Your task to perform on an android device: What is the recent news? Image 0: 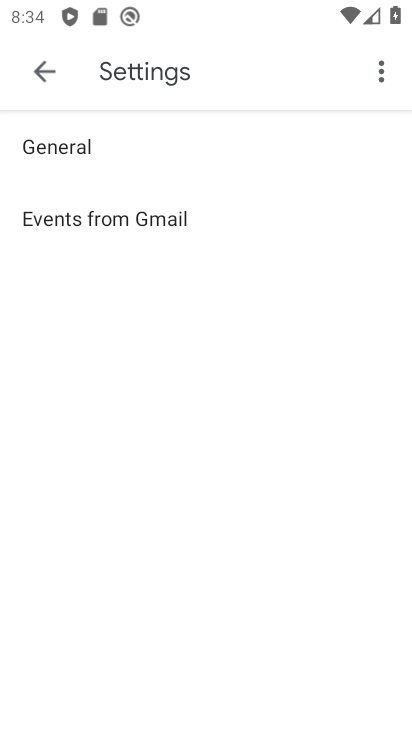
Step 0: press home button
Your task to perform on an android device: What is the recent news? Image 1: 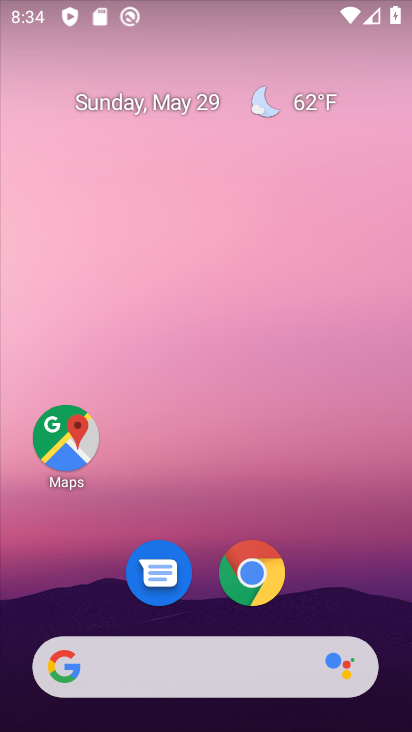
Step 1: click (208, 669)
Your task to perform on an android device: What is the recent news? Image 2: 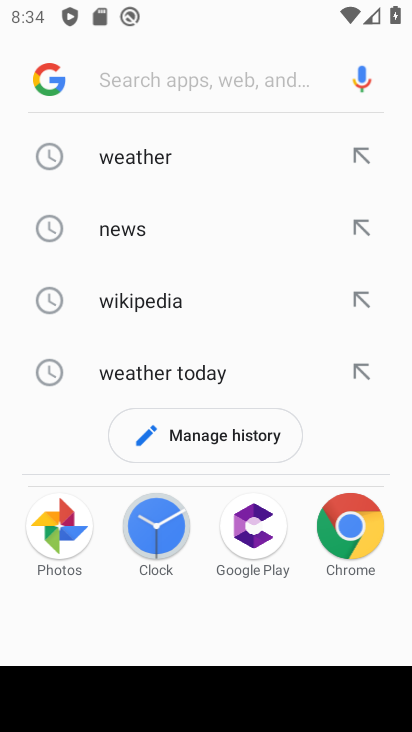
Step 2: type "recent news"
Your task to perform on an android device: What is the recent news? Image 3: 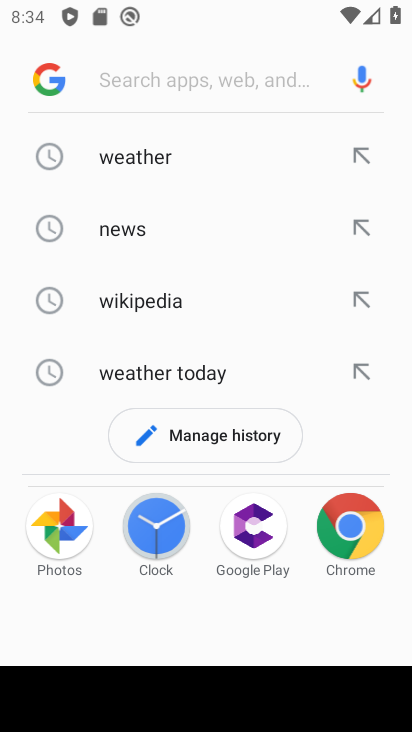
Step 3: click (188, 83)
Your task to perform on an android device: What is the recent news? Image 4: 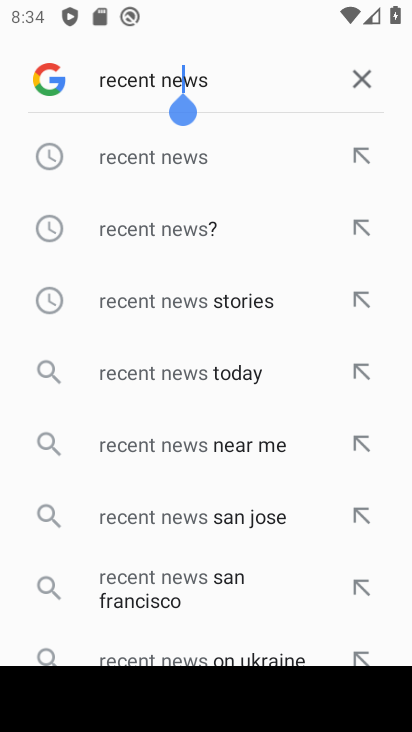
Step 4: click (168, 76)
Your task to perform on an android device: What is the recent news? Image 5: 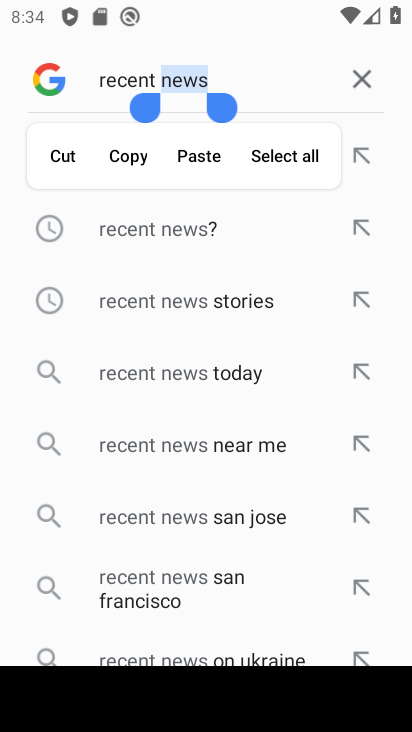
Step 5: click (134, 223)
Your task to perform on an android device: What is the recent news? Image 6: 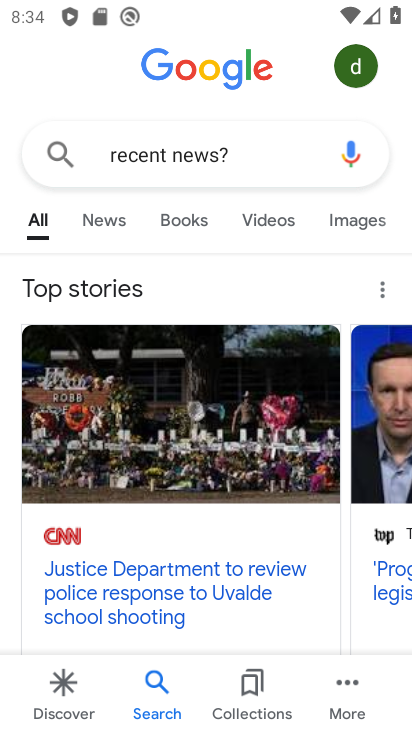
Step 6: task complete